Your task to perform on an android device: Open notification settings Image 0: 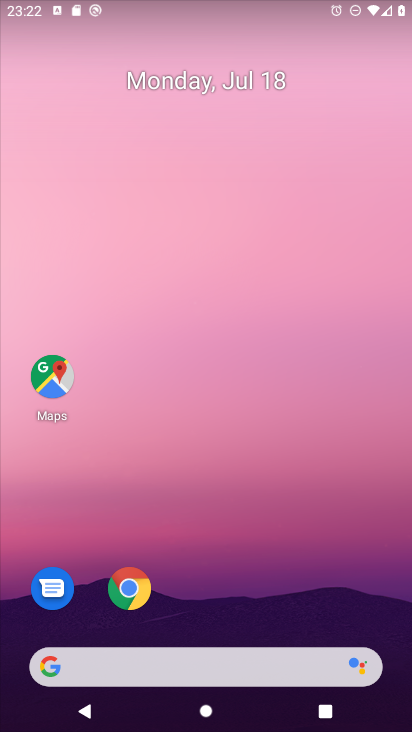
Step 0: drag from (389, 639) to (296, 74)
Your task to perform on an android device: Open notification settings Image 1: 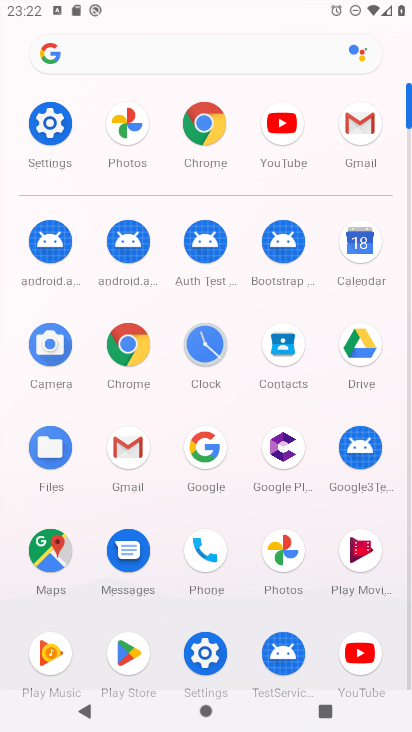
Step 1: click (206, 651)
Your task to perform on an android device: Open notification settings Image 2: 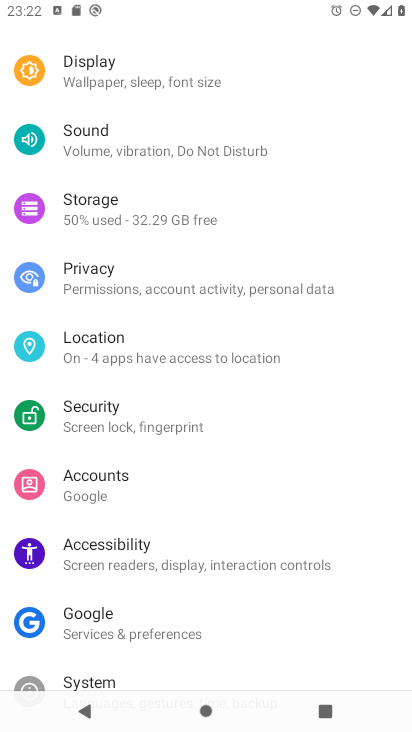
Step 2: drag from (321, 111) to (355, 419)
Your task to perform on an android device: Open notification settings Image 3: 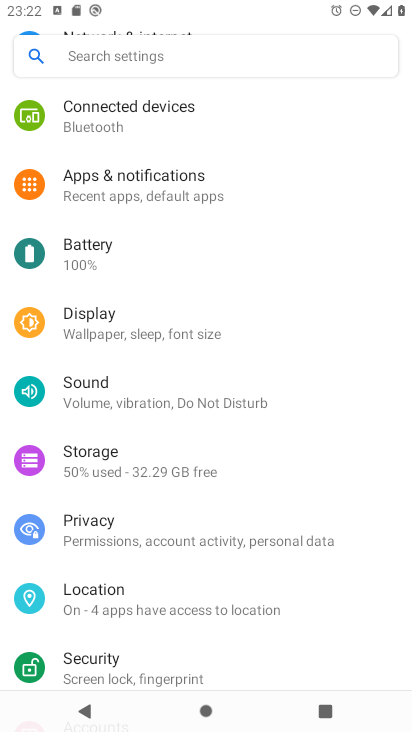
Step 3: click (110, 175)
Your task to perform on an android device: Open notification settings Image 4: 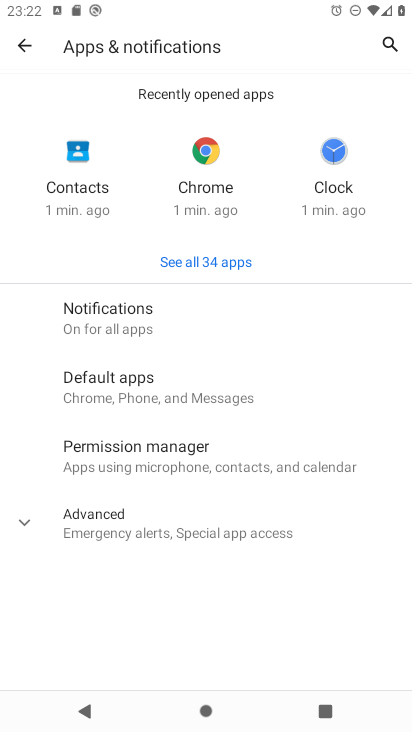
Step 4: click (102, 325)
Your task to perform on an android device: Open notification settings Image 5: 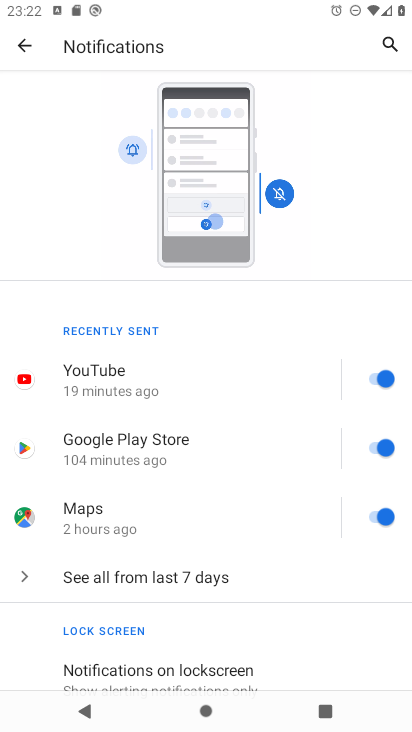
Step 5: drag from (301, 609) to (315, 167)
Your task to perform on an android device: Open notification settings Image 6: 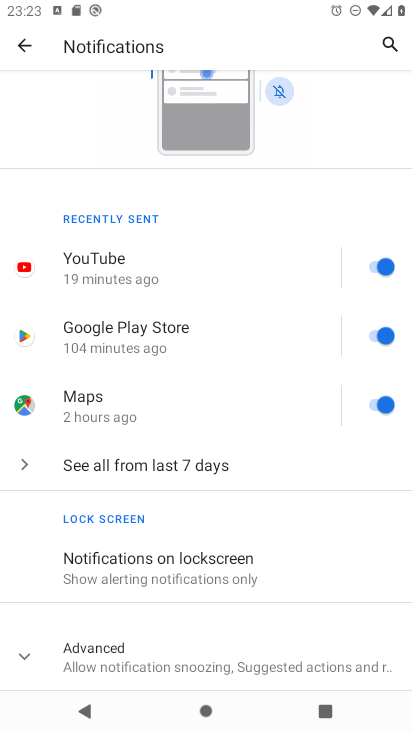
Step 6: click (25, 651)
Your task to perform on an android device: Open notification settings Image 7: 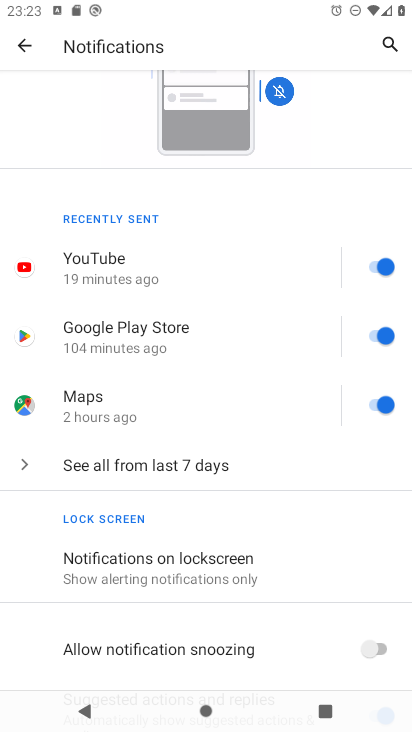
Step 7: task complete